Your task to perform on an android device: change notifications settings Image 0: 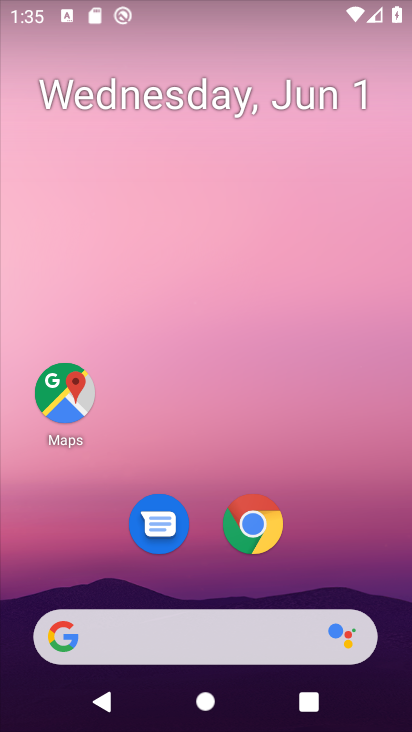
Step 0: drag from (320, 557) to (325, 32)
Your task to perform on an android device: change notifications settings Image 1: 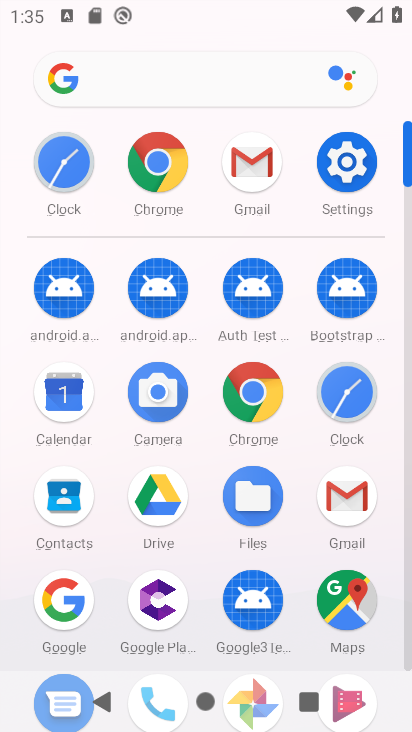
Step 1: click (345, 139)
Your task to perform on an android device: change notifications settings Image 2: 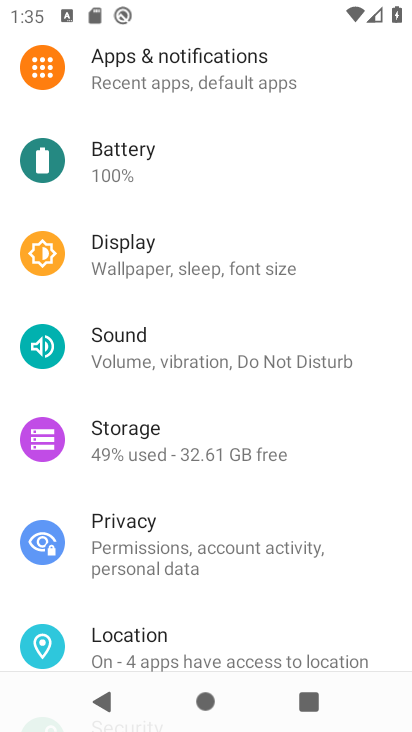
Step 2: click (231, 75)
Your task to perform on an android device: change notifications settings Image 3: 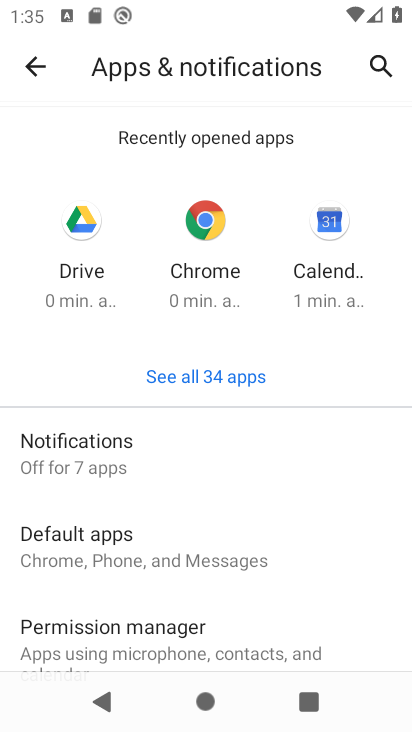
Step 3: click (245, 450)
Your task to perform on an android device: change notifications settings Image 4: 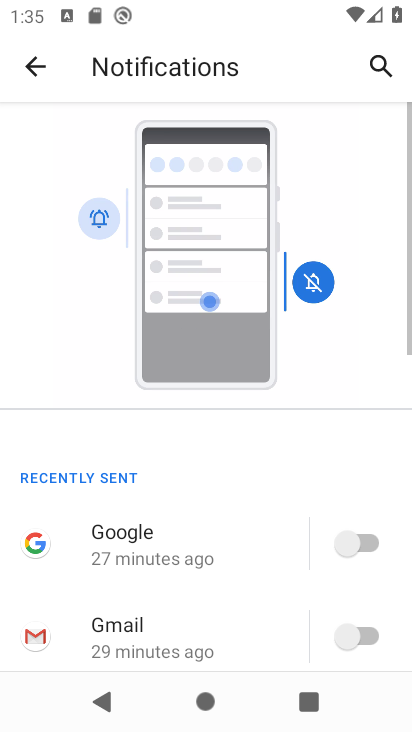
Step 4: drag from (253, 486) to (245, 123)
Your task to perform on an android device: change notifications settings Image 5: 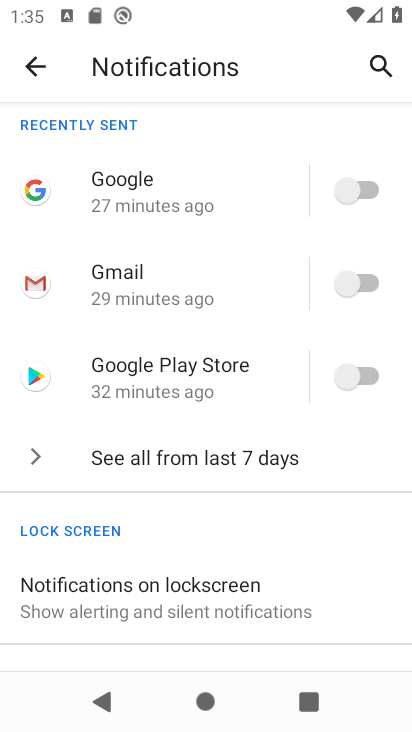
Step 5: click (256, 443)
Your task to perform on an android device: change notifications settings Image 6: 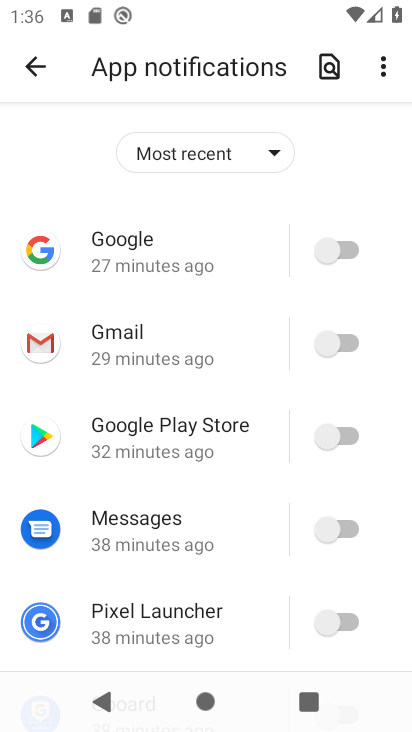
Step 6: click (340, 239)
Your task to perform on an android device: change notifications settings Image 7: 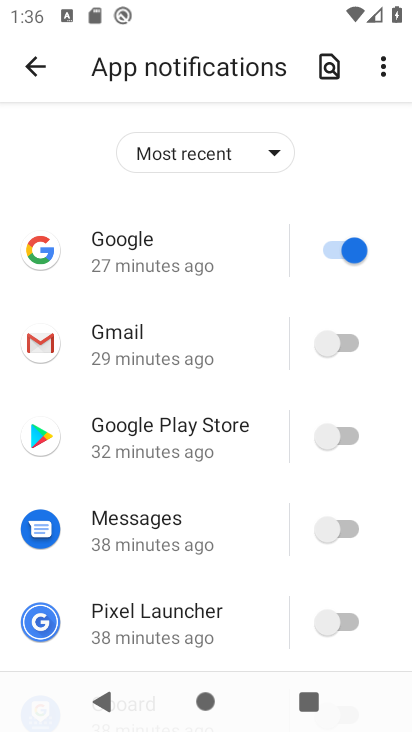
Step 7: click (345, 333)
Your task to perform on an android device: change notifications settings Image 8: 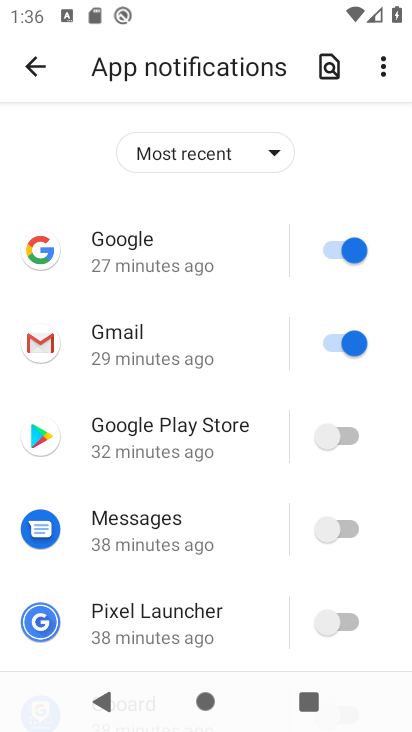
Step 8: click (342, 421)
Your task to perform on an android device: change notifications settings Image 9: 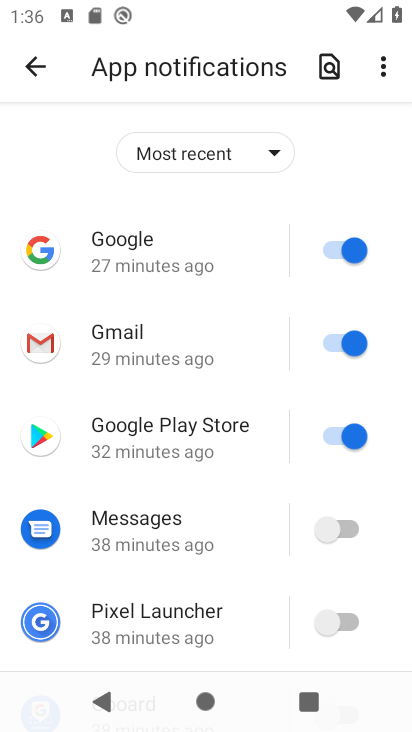
Step 9: click (346, 506)
Your task to perform on an android device: change notifications settings Image 10: 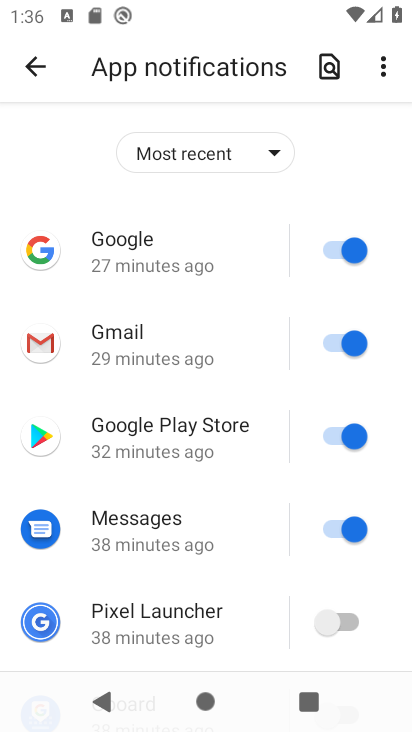
Step 10: click (343, 611)
Your task to perform on an android device: change notifications settings Image 11: 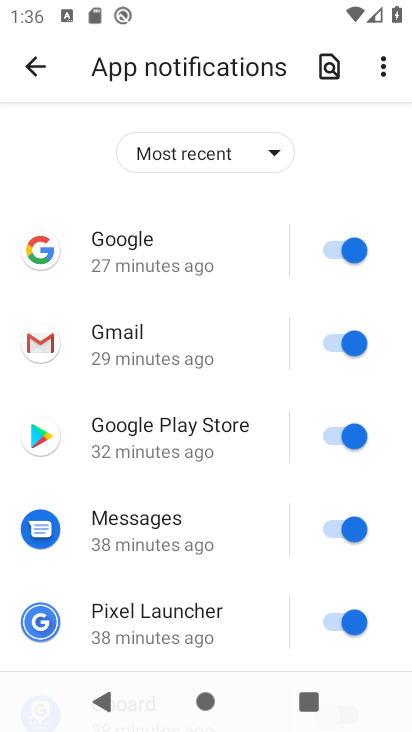
Step 11: drag from (215, 517) to (242, 232)
Your task to perform on an android device: change notifications settings Image 12: 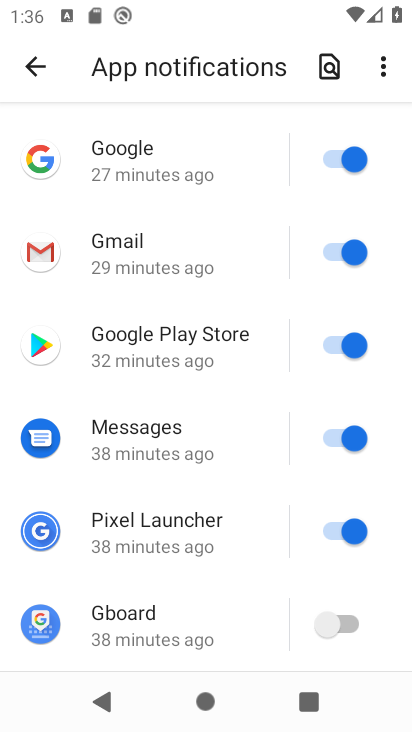
Step 12: click (346, 622)
Your task to perform on an android device: change notifications settings Image 13: 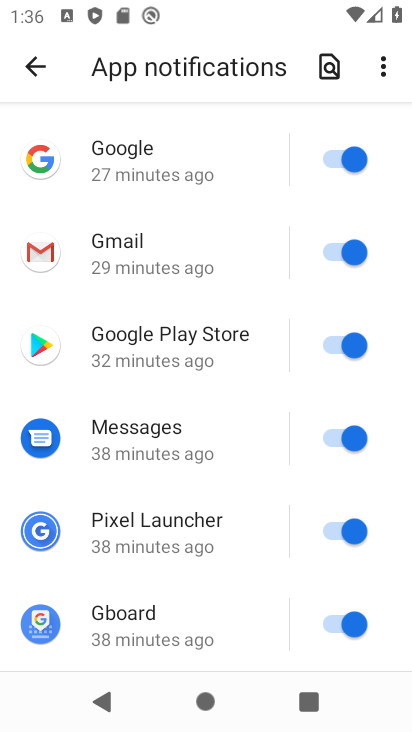
Step 13: task complete